Your task to perform on an android device: Open maps Image 0: 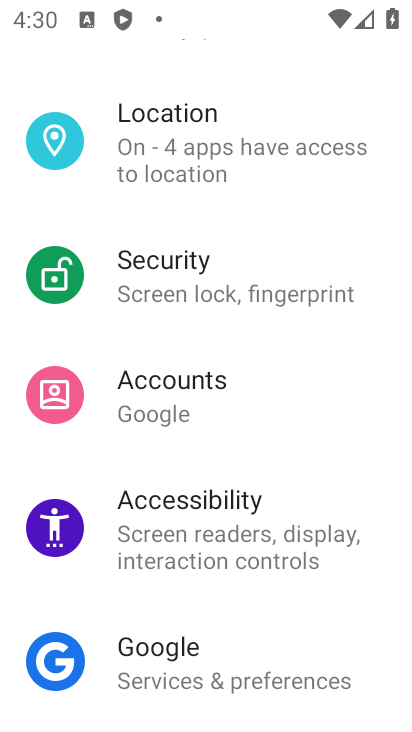
Step 0: press home button
Your task to perform on an android device: Open maps Image 1: 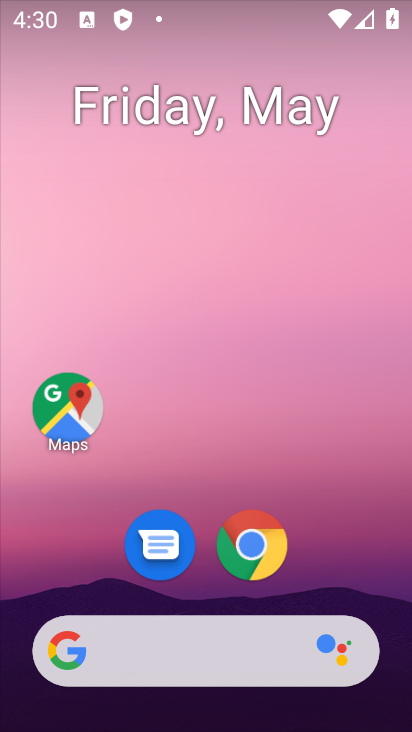
Step 1: click (53, 404)
Your task to perform on an android device: Open maps Image 2: 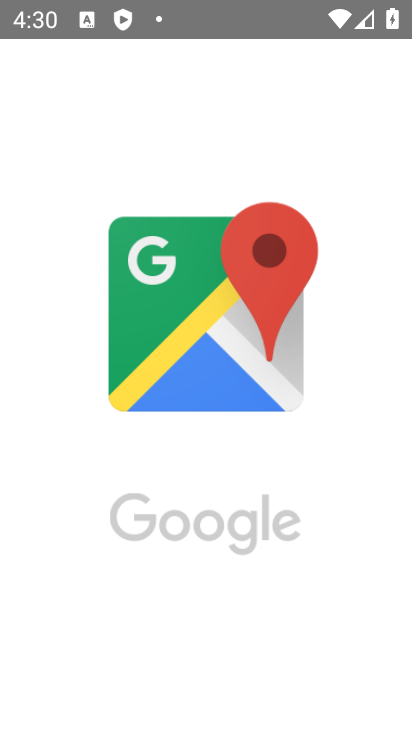
Step 2: task complete